Your task to perform on an android device: delete browsing data in the chrome app Image 0: 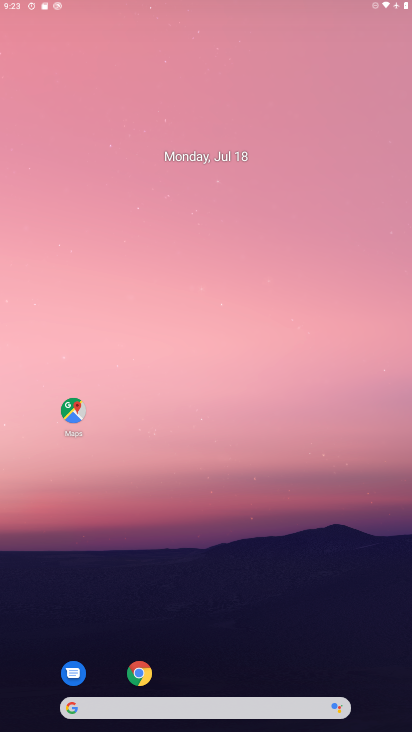
Step 0: press home button
Your task to perform on an android device: delete browsing data in the chrome app Image 1: 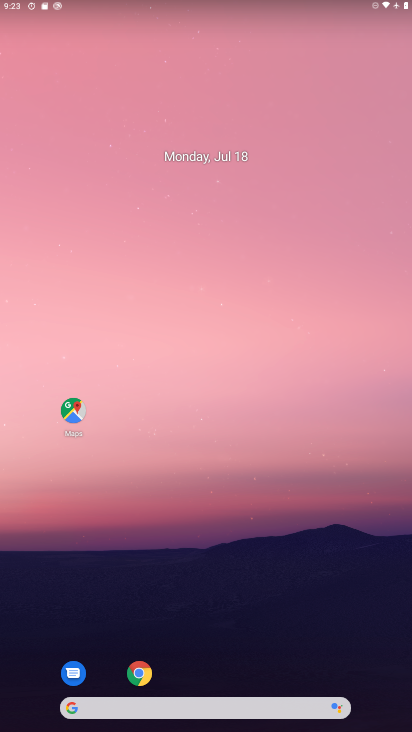
Step 1: drag from (229, 650) to (299, 27)
Your task to perform on an android device: delete browsing data in the chrome app Image 2: 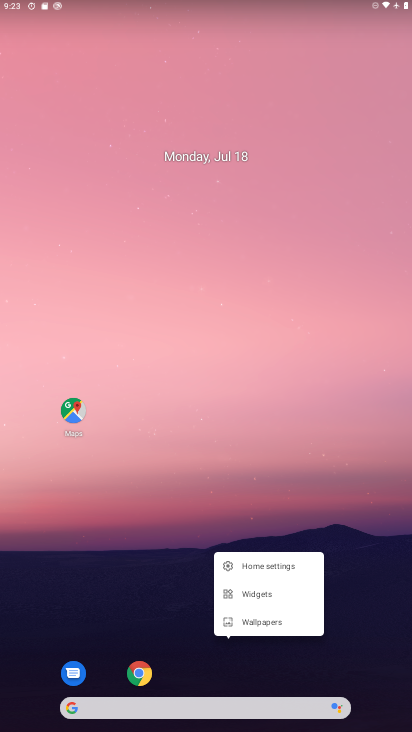
Step 2: drag from (184, 672) to (211, 16)
Your task to perform on an android device: delete browsing data in the chrome app Image 3: 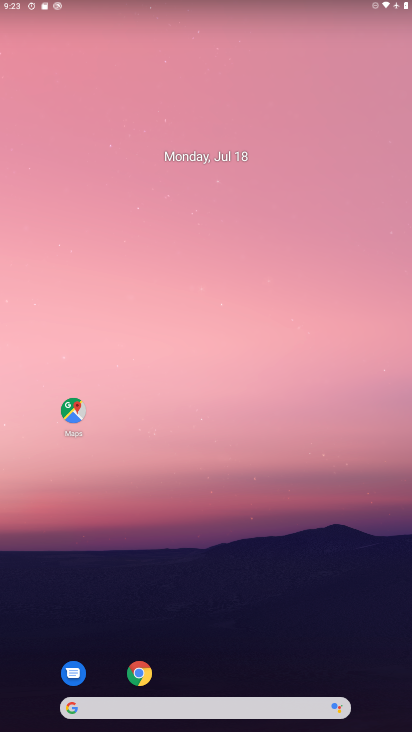
Step 3: drag from (230, 648) to (283, 88)
Your task to perform on an android device: delete browsing data in the chrome app Image 4: 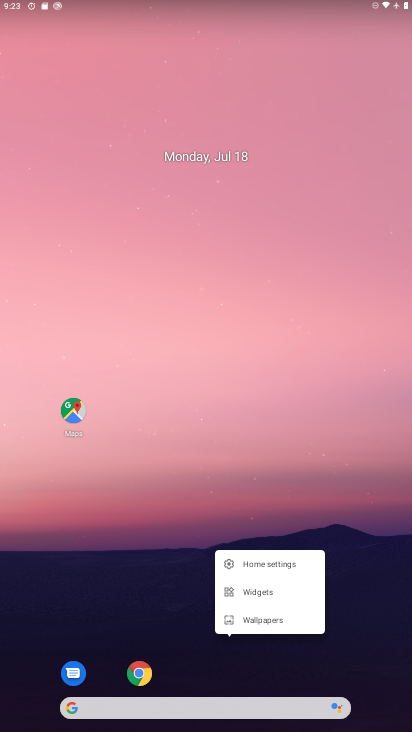
Step 4: click (150, 561)
Your task to perform on an android device: delete browsing data in the chrome app Image 5: 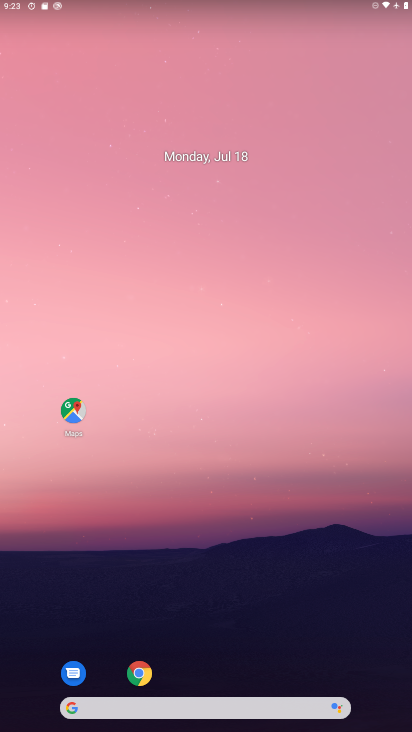
Step 5: drag from (199, 657) to (206, 10)
Your task to perform on an android device: delete browsing data in the chrome app Image 6: 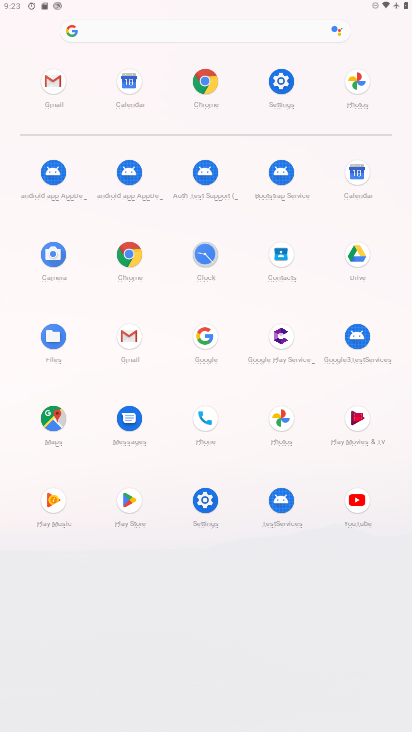
Step 6: click (200, 71)
Your task to perform on an android device: delete browsing data in the chrome app Image 7: 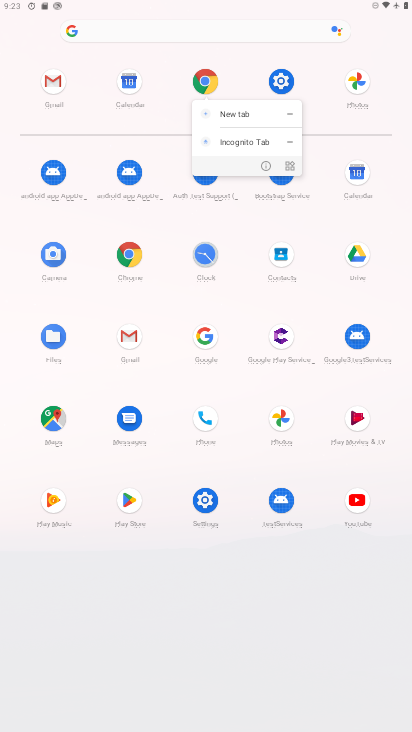
Step 7: click (200, 71)
Your task to perform on an android device: delete browsing data in the chrome app Image 8: 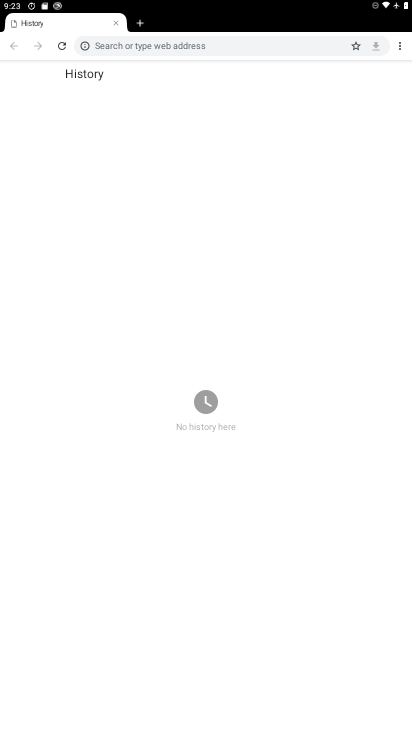
Step 8: drag from (399, 49) to (308, 220)
Your task to perform on an android device: delete browsing data in the chrome app Image 9: 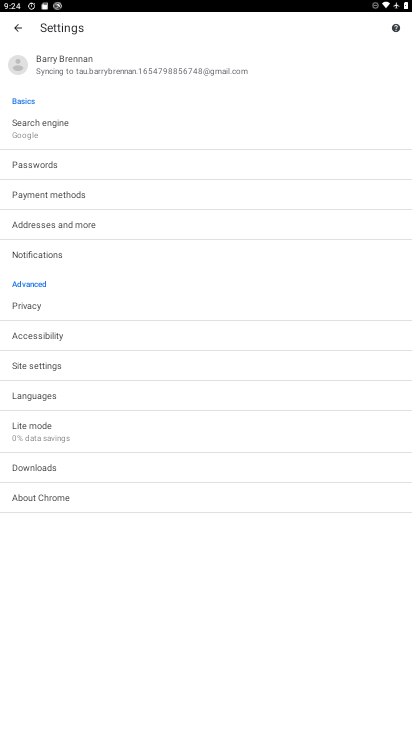
Step 9: click (32, 309)
Your task to perform on an android device: delete browsing data in the chrome app Image 10: 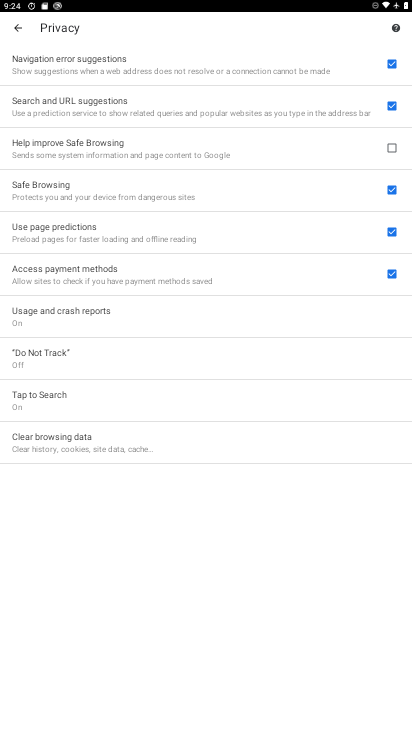
Step 10: click (42, 443)
Your task to perform on an android device: delete browsing data in the chrome app Image 11: 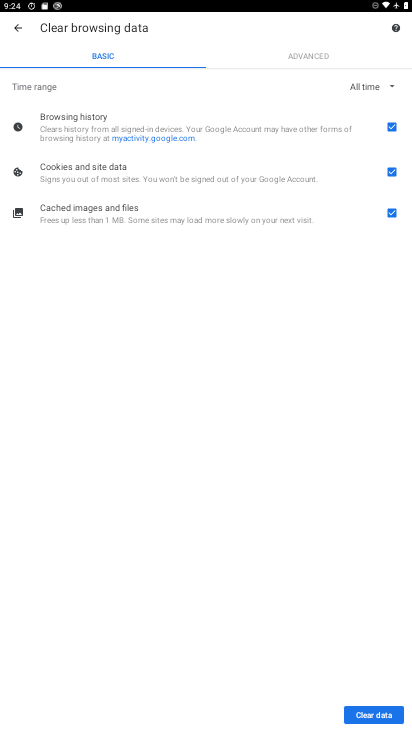
Step 11: click (376, 712)
Your task to perform on an android device: delete browsing data in the chrome app Image 12: 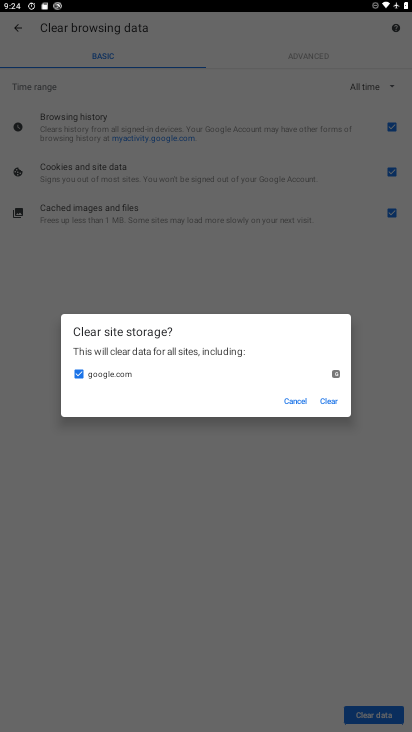
Step 12: click (331, 401)
Your task to perform on an android device: delete browsing data in the chrome app Image 13: 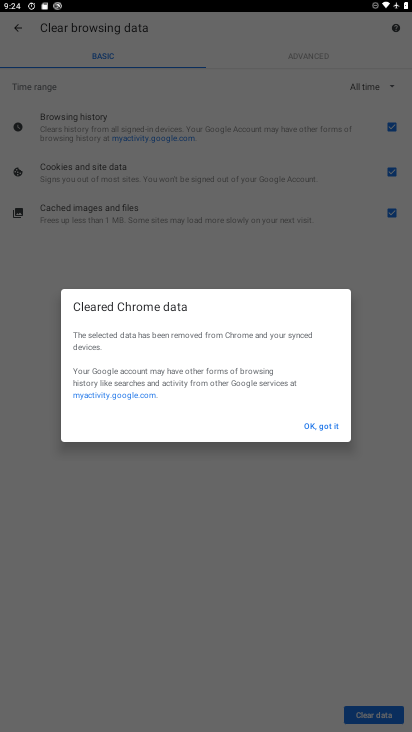
Step 13: click (317, 430)
Your task to perform on an android device: delete browsing data in the chrome app Image 14: 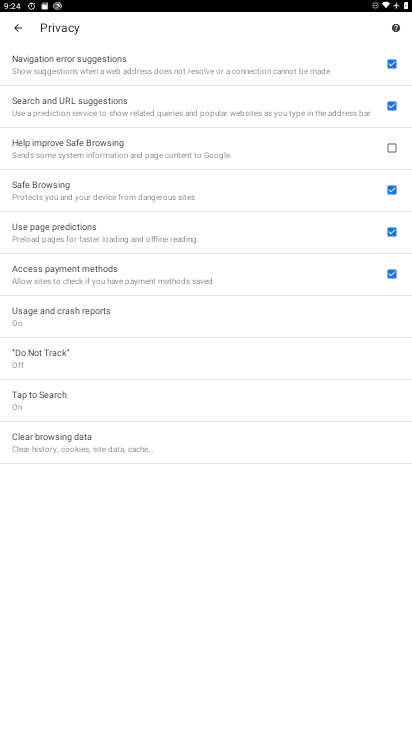
Step 14: task complete